Your task to perform on an android device: change the upload size in google photos Image 0: 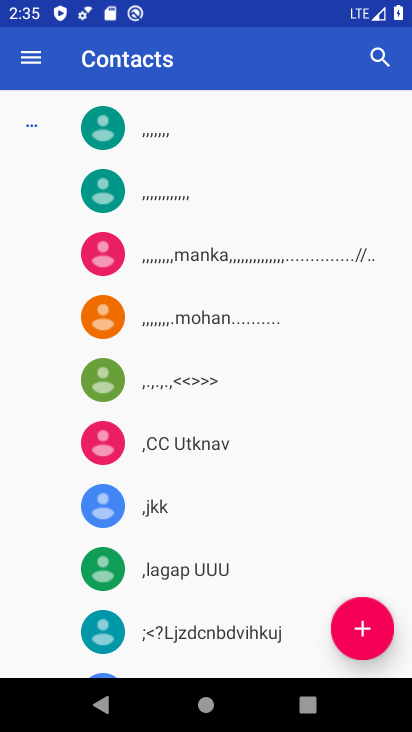
Step 0: press home button
Your task to perform on an android device: change the upload size in google photos Image 1: 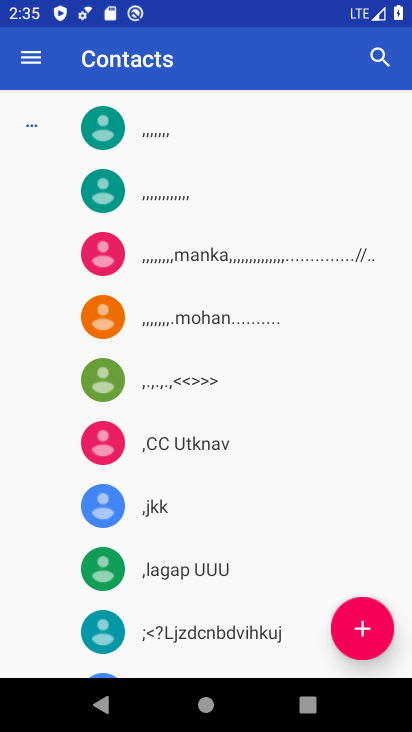
Step 1: press home button
Your task to perform on an android device: change the upload size in google photos Image 2: 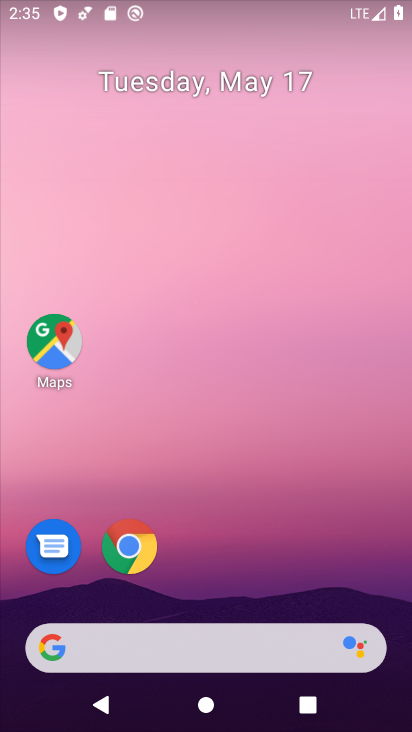
Step 2: drag from (295, 552) to (284, 36)
Your task to perform on an android device: change the upload size in google photos Image 3: 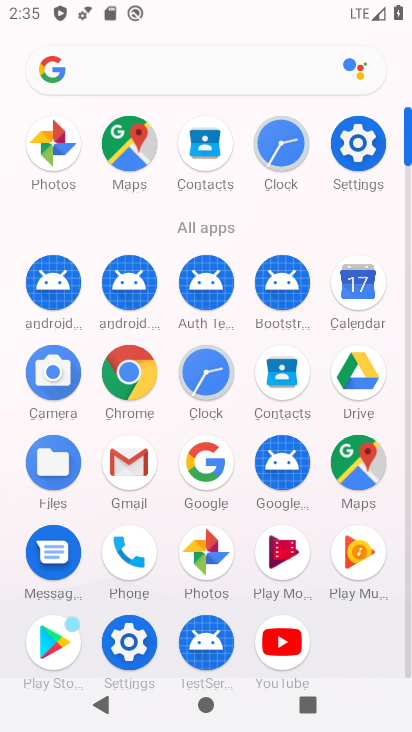
Step 3: click (185, 568)
Your task to perform on an android device: change the upload size in google photos Image 4: 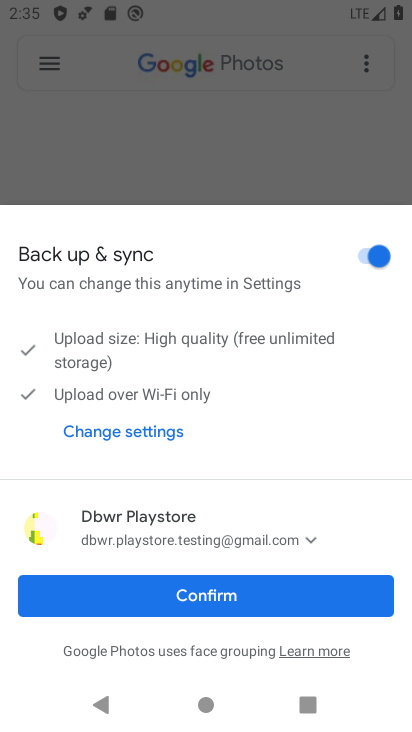
Step 4: click (171, 600)
Your task to perform on an android device: change the upload size in google photos Image 5: 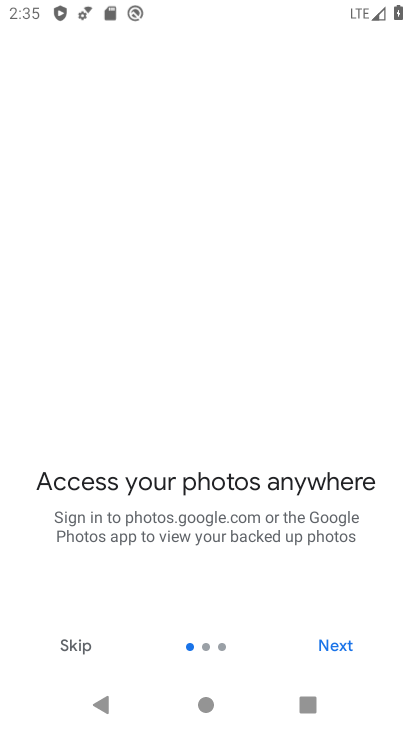
Step 5: click (60, 60)
Your task to perform on an android device: change the upload size in google photos Image 6: 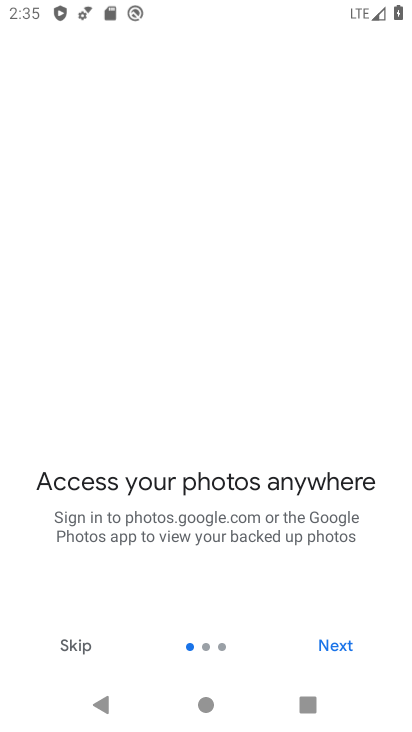
Step 6: click (353, 648)
Your task to perform on an android device: change the upload size in google photos Image 7: 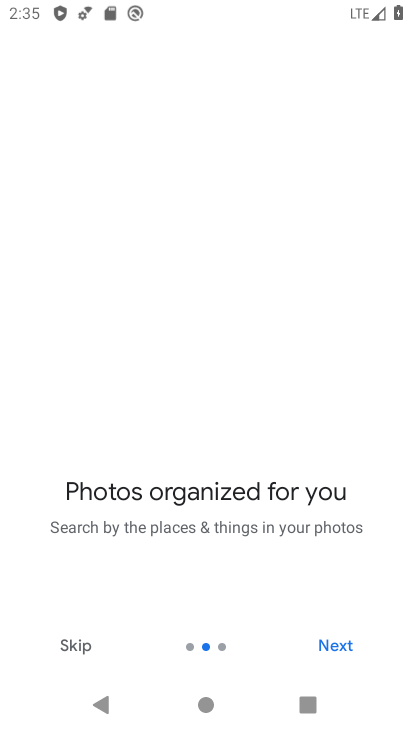
Step 7: click (353, 648)
Your task to perform on an android device: change the upload size in google photos Image 8: 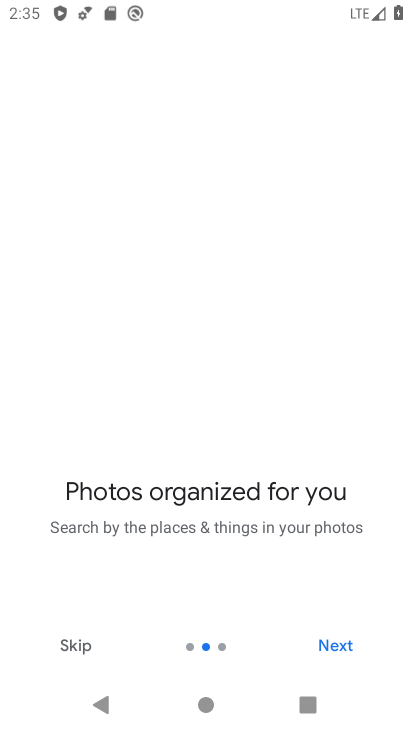
Step 8: click (353, 648)
Your task to perform on an android device: change the upload size in google photos Image 9: 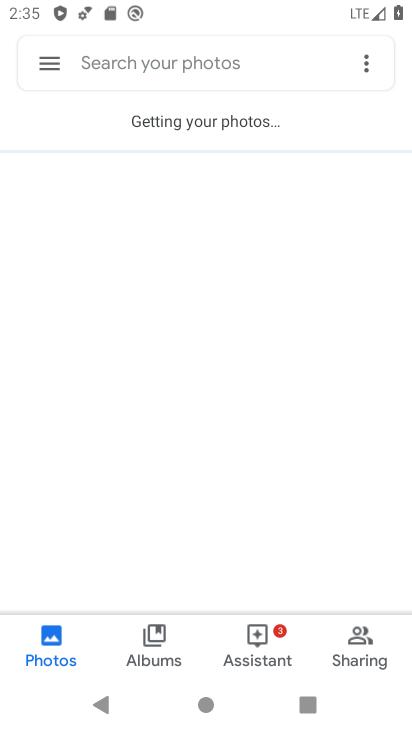
Step 9: click (53, 68)
Your task to perform on an android device: change the upload size in google photos Image 10: 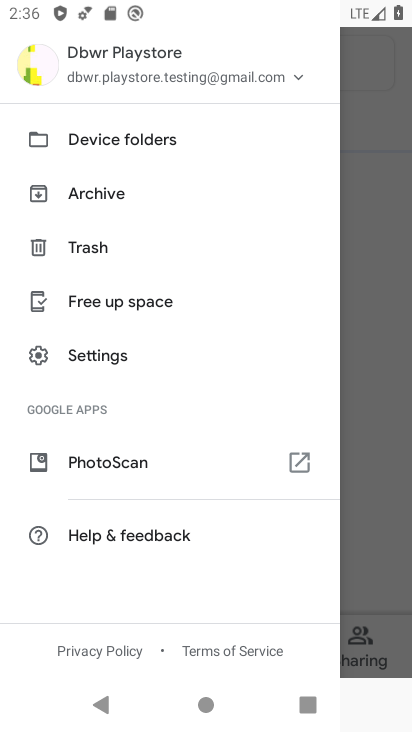
Step 10: click (89, 356)
Your task to perform on an android device: change the upload size in google photos Image 11: 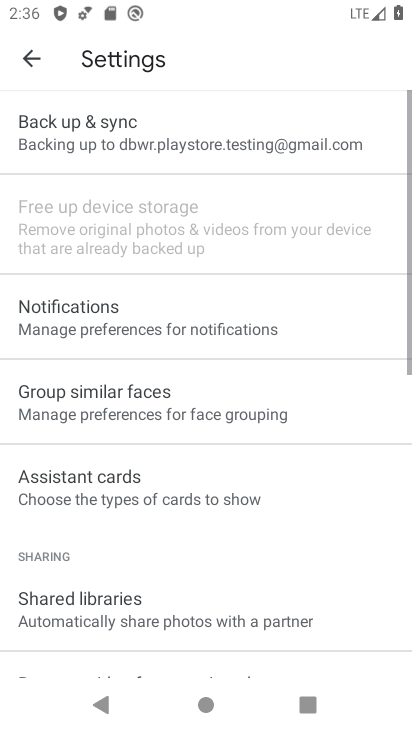
Step 11: click (117, 151)
Your task to perform on an android device: change the upload size in google photos Image 12: 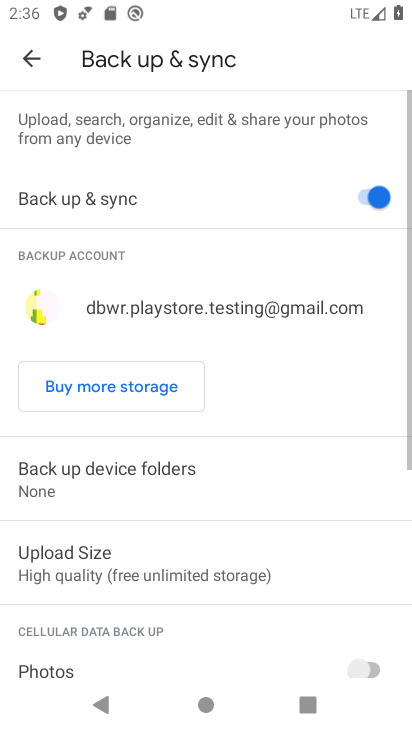
Step 12: click (136, 586)
Your task to perform on an android device: change the upload size in google photos Image 13: 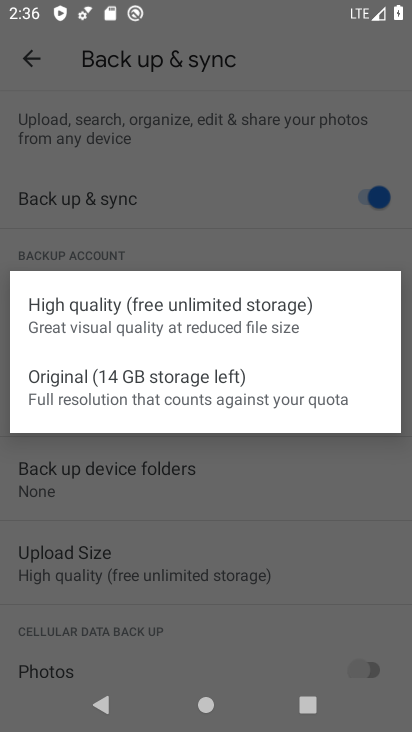
Step 13: click (132, 378)
Your task to perform on an android device: change the upload size in google photos Image 14: 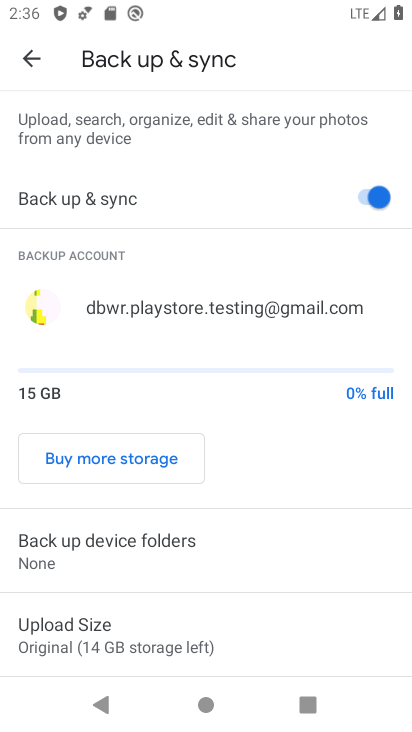
Step 14: task complete